Your task to perform on an android device: Do I have any events tomorrow? Image 0: 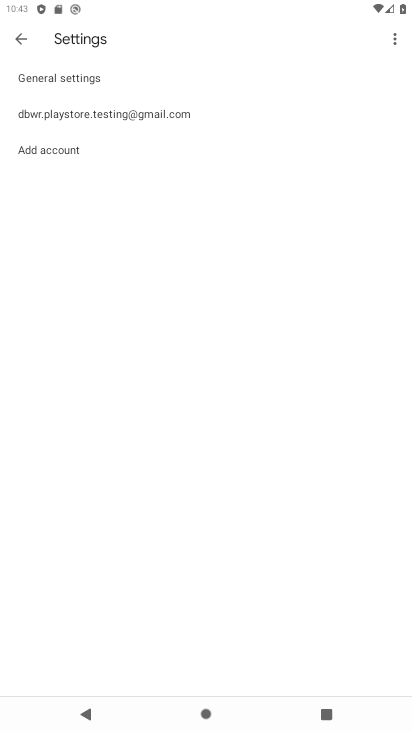
Step 0: press home button
Your task to perform on an android device: Do I have any events tomorrow? Image 1: 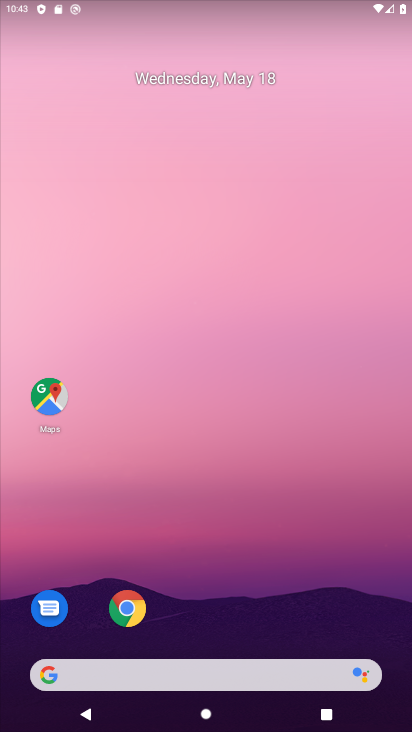
Step 1: drag from (231, 563) to (220, 140)
Your task to perform on an android device: Do I have any events tomorrow? Image 2: 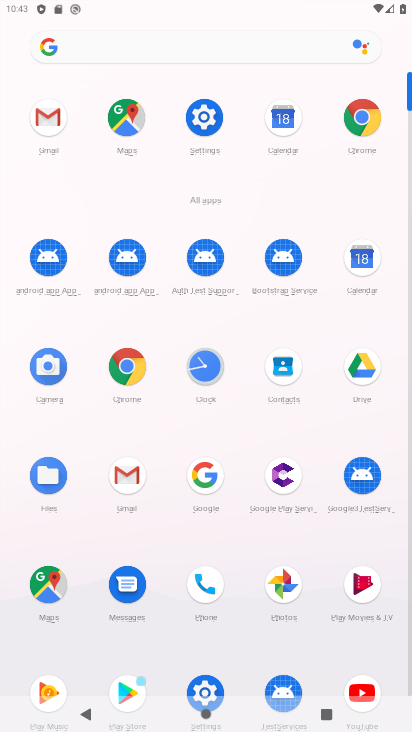
Step 2: click (378, 258)
Your task to perform on an android device: Do I have any events tomorrow? Image 3: 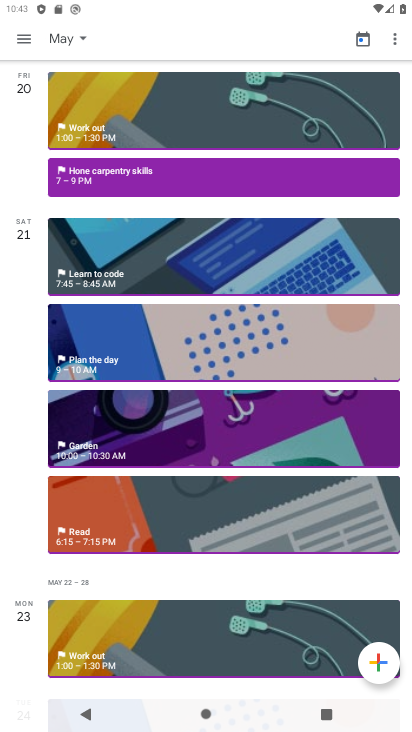
Step 3: click (71, 43)
Your task to perform on an android device: Do I have any events tomorrow? Image 4: 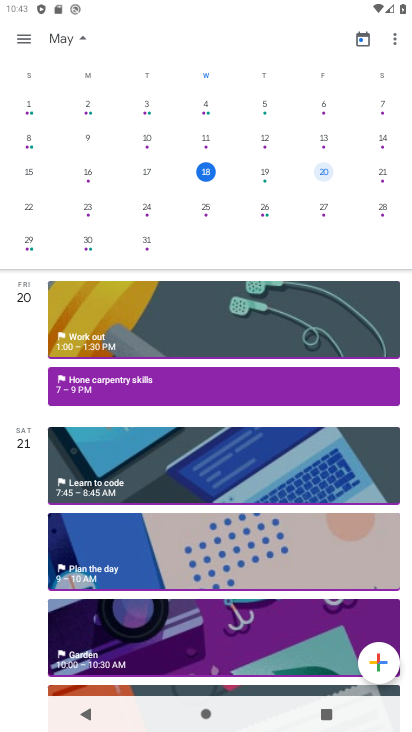
Step 4: click (255, 168)
Your task to perform on an android device: Do I have any events tomorrow? Image 5: 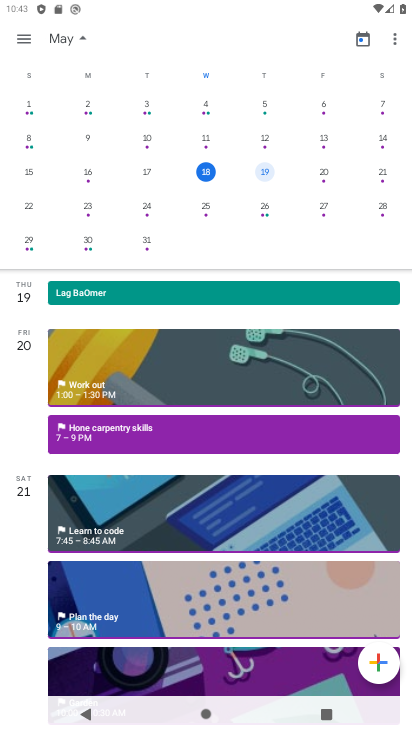
Step 5: click (79, 33)
Your task to perform on an android device: Do I have any events tomorrow? Image 6: 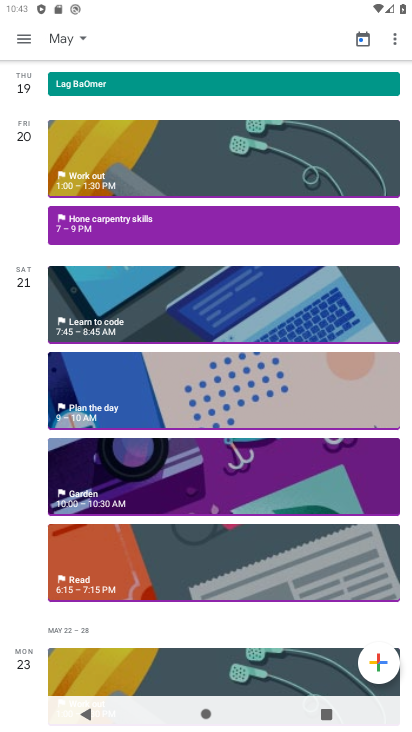
Step 6: task complete